Your task to perform on an android device: Go to location settings Image 0: 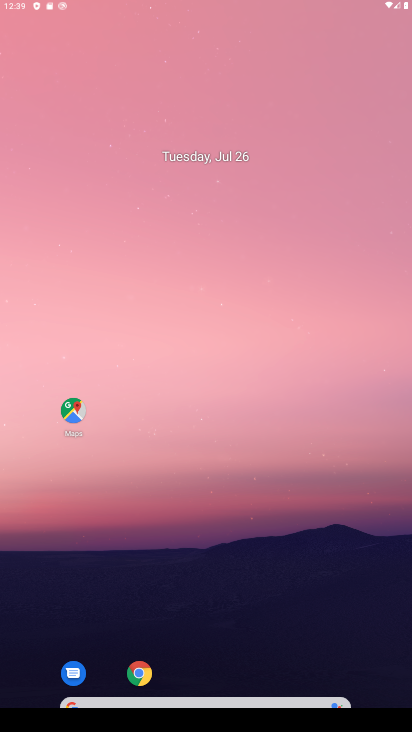
Step 0: click (232, 368)
Your task to perform on an android device: Go to location settings Image 1: 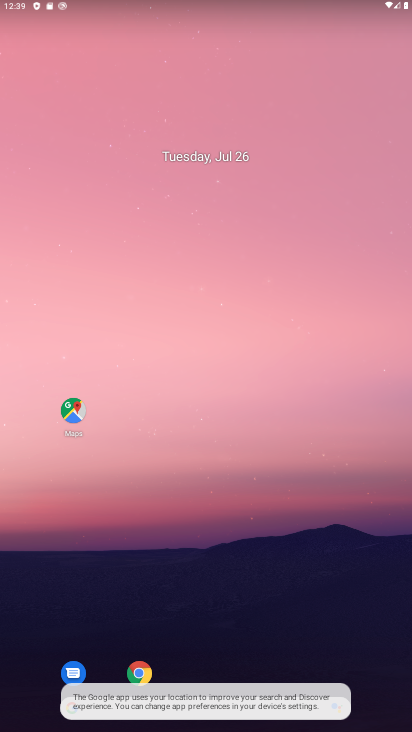
Step 1: drag from (189, 634) to (295, 131)
Your task to perform on an android device: Go to location settings Image 2: 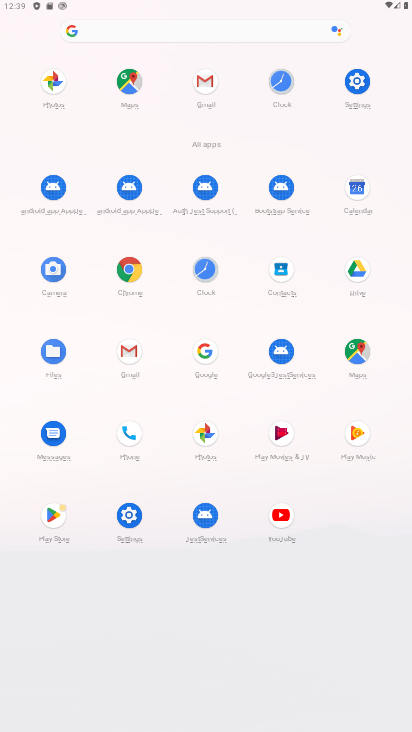
Step 2: click (122, 514)
Your task to perform on an android device: Go to location settings Image 3: 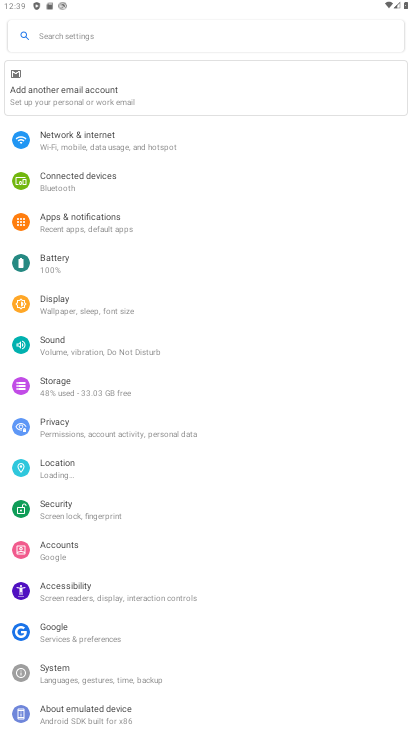
Step 3: click (80, 398)
Your task to perform on an android device: Go to location settings Image 4: 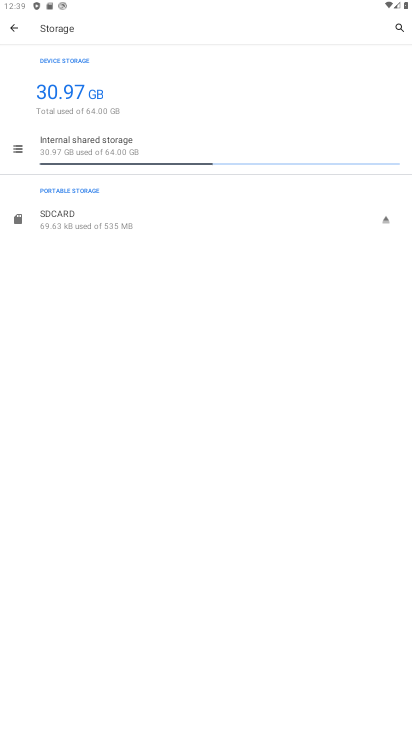
Step 4: click (6, 33)
Your task to perform on an android device: Go to location settings Image 5: 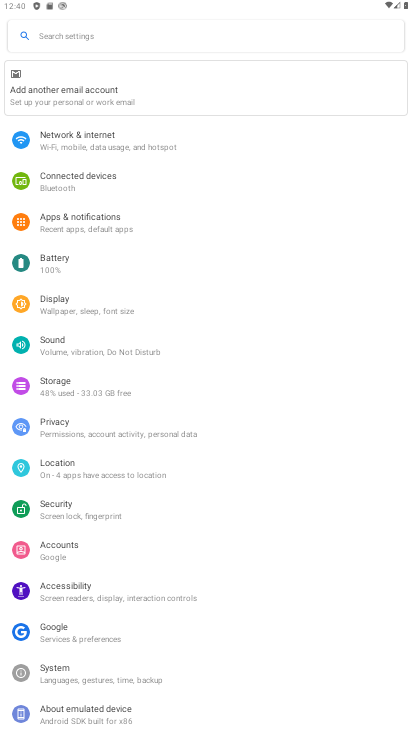
Step 5: click (79, 468)
Your task to perform on an android device: Go to location settings Image 6: 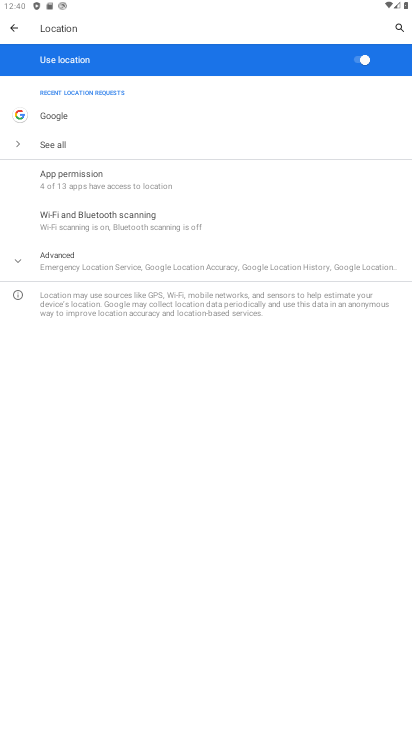
Step 6: click (140, 259)
Your task to perform on an android device: Go to location settings Image 7: 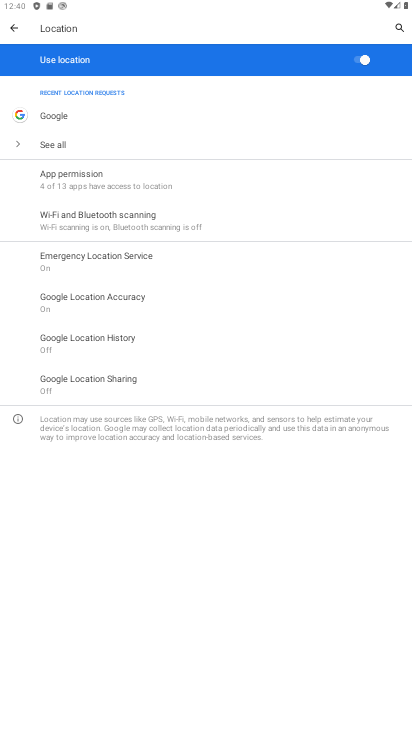
Step 7: task complete